Your task to perform on an android device: What's the weather? Image 0: 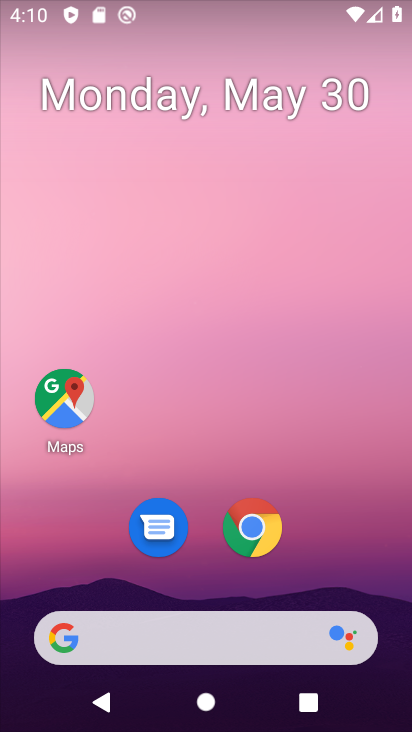
Step 0: drag from (230, 5) to (246, 146)
Your task to perform on an android device: What's the weather? Image 1: 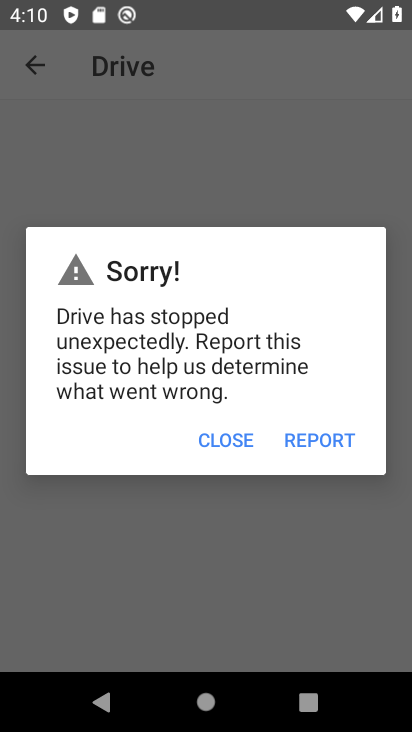
Step 1: press home button
Your task to perform on an android device: What's the weather? Image 2: 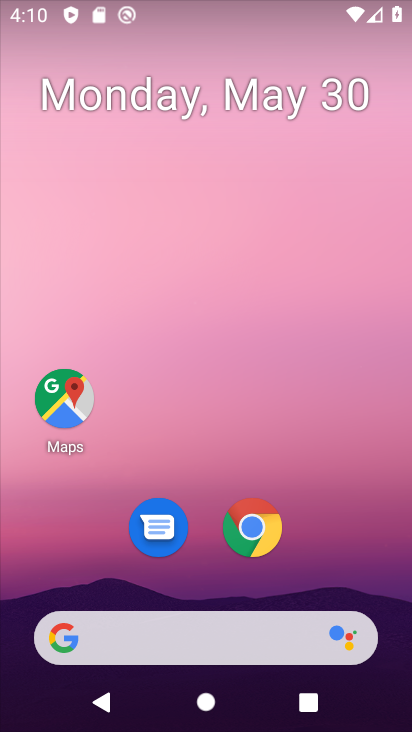
Step 2: drag from (232, 726) to (238, 24)
Your task to perform on an android device: What's the weather? Image 3: 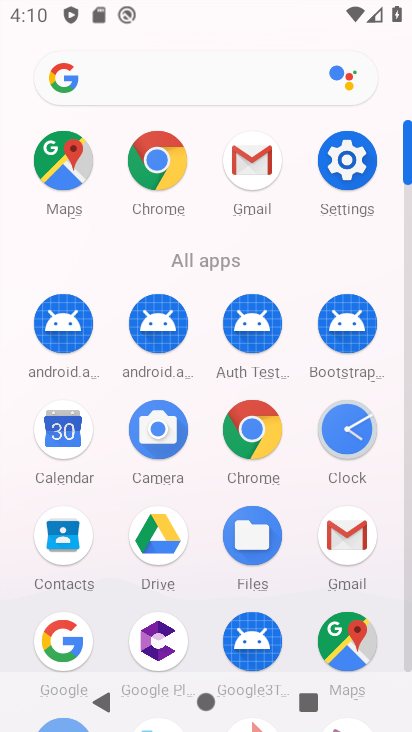
Step 3: click (62, 635)
Your task to perform on an android device: What's the weather? Image 4: 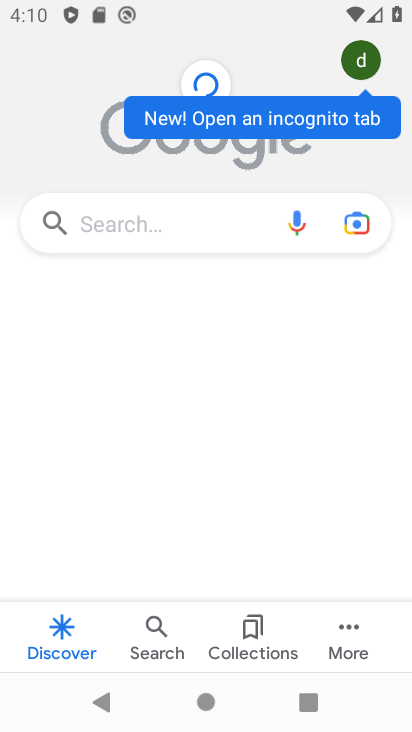
Step 4: click (200, 228)
Your task to perform on an android device: What's the weather? Image 5: 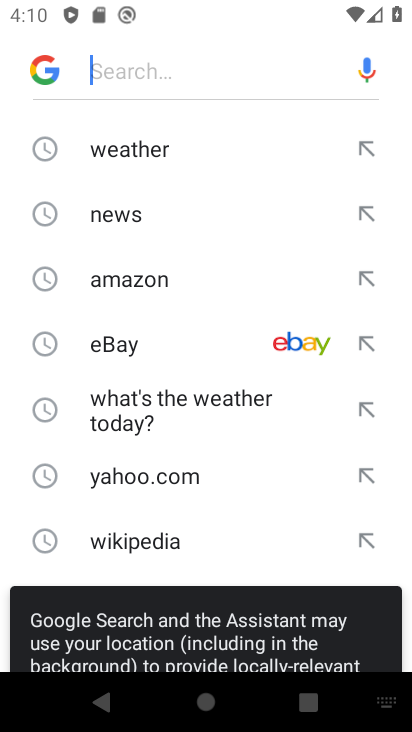
Step 5: click (109, 149)
Your task to perform on an android device: What's the weather? Image 6: 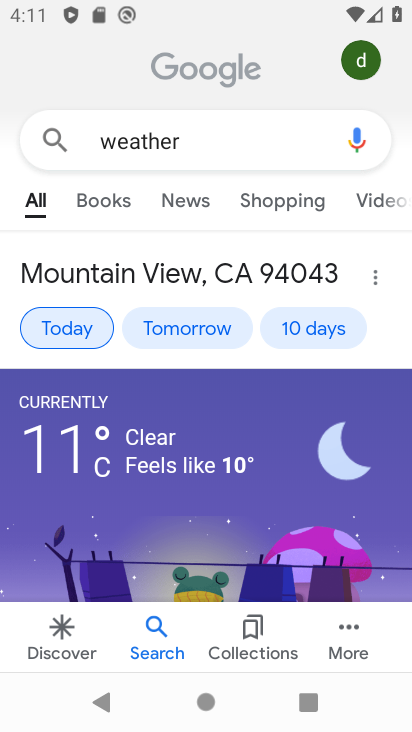
Step 6: click (69, 328)
Your task to perform on an android device: What's the weather? Image 7: 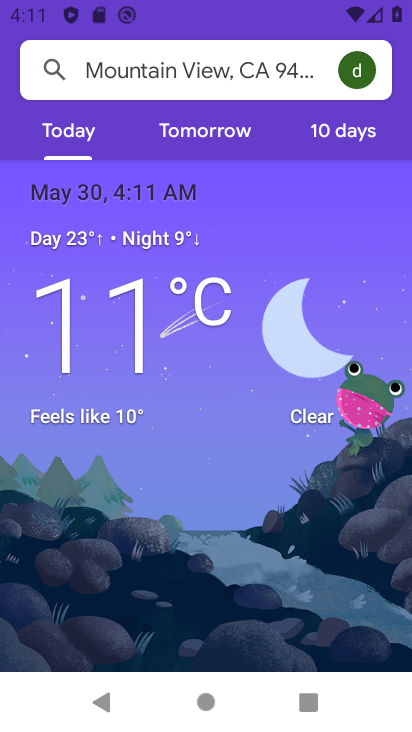
Step 7: task complete